Your task to perform on an android device: check out phone information Image 0: 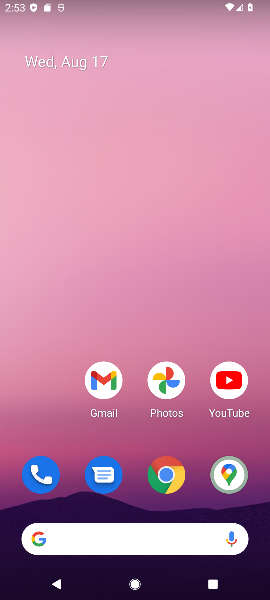
Step 0: drag from (139, 491) to (266, 253)
Your task to perform on an android device: check out phone information Image 1: 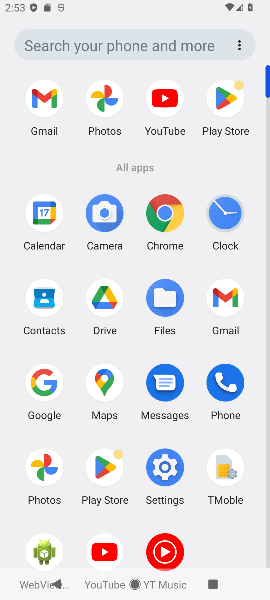
Step 1: click (170, 470)
Your task to perform on an android device: check out phone information Image 2: 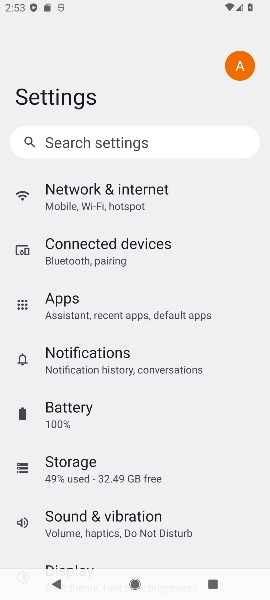
Step 2: drag from (170, 470) to (194, 26)
Your task to perform on an android device: check out phone information Image 3: 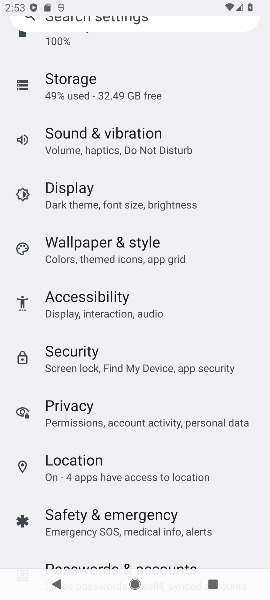
Step 3: drag from (229, 485) to (167, 15)
Your task to perform on an android device: check out phone information Image 4: 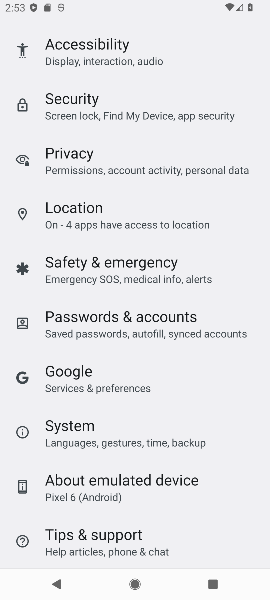
Step 4: click (115, 470)
Your task to perform on an android device: check out phone information Image 5: 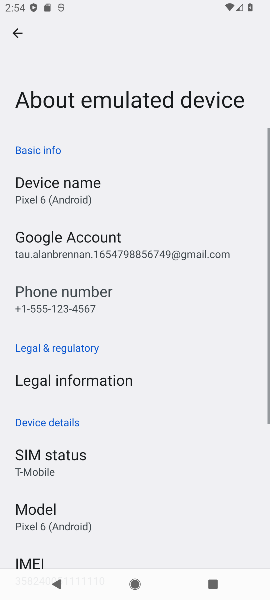
Step 5: task complete